Your task to perform on an android device: Open settings on Google Maps Image 0: 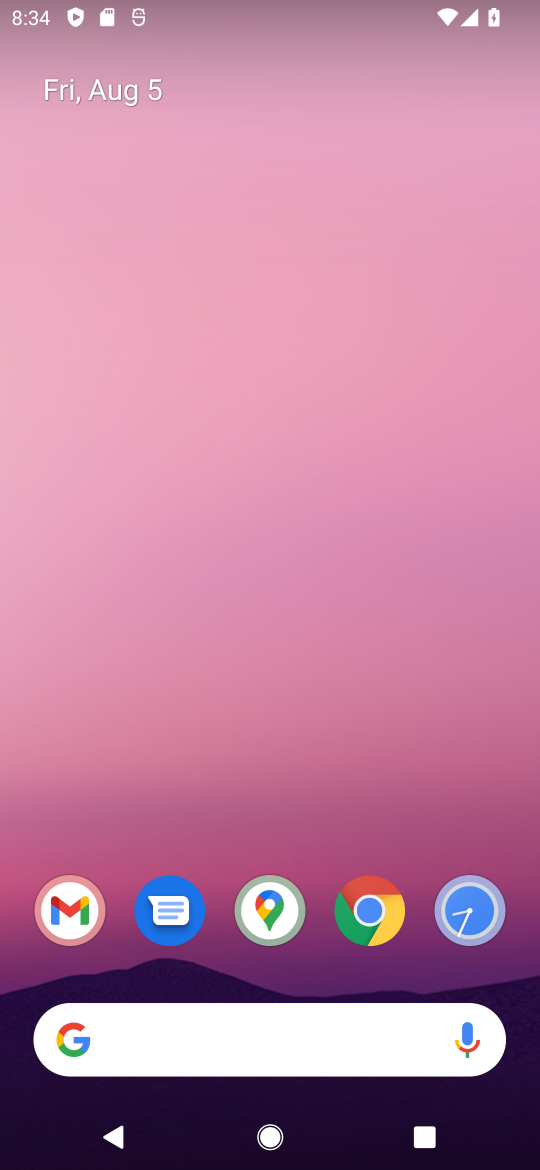
Step 0: press home button
Your task to perform on an android device: Open settings on Google Maps Image 1: 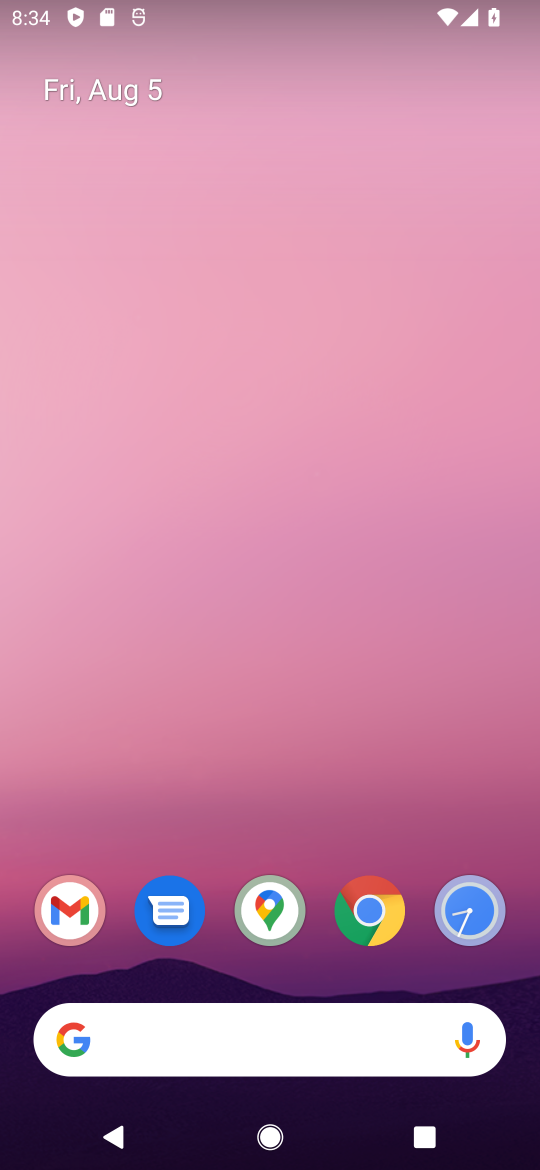
Step 1: click (272, 910)
Your task to perform on an android device: Open settings on Google Maps Image 2: 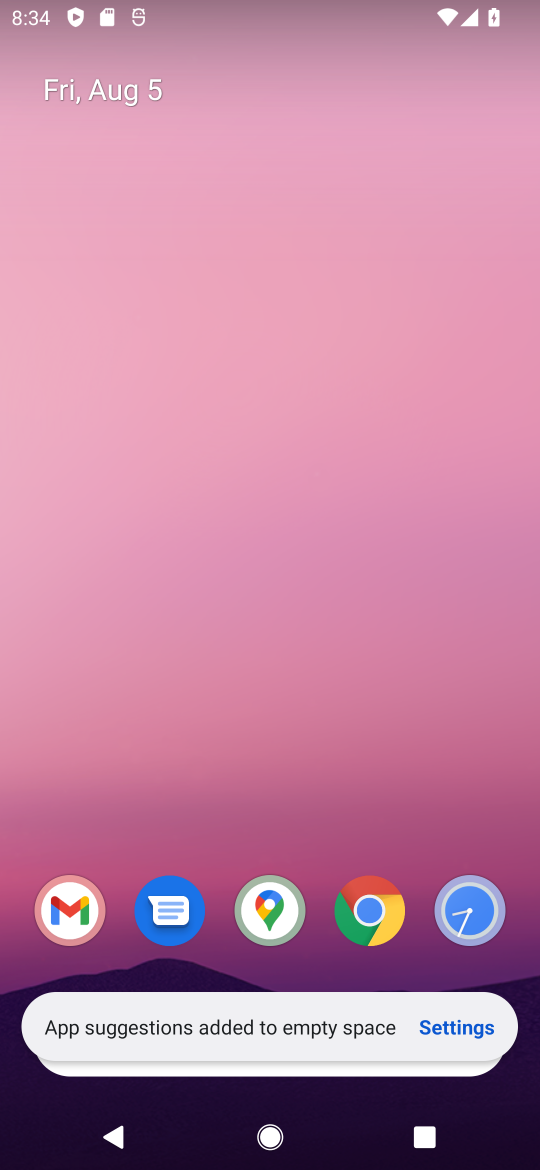
Step 2: click (272, 910)
Your task to perform on an android device: Open settings on Google Maps Image 3: 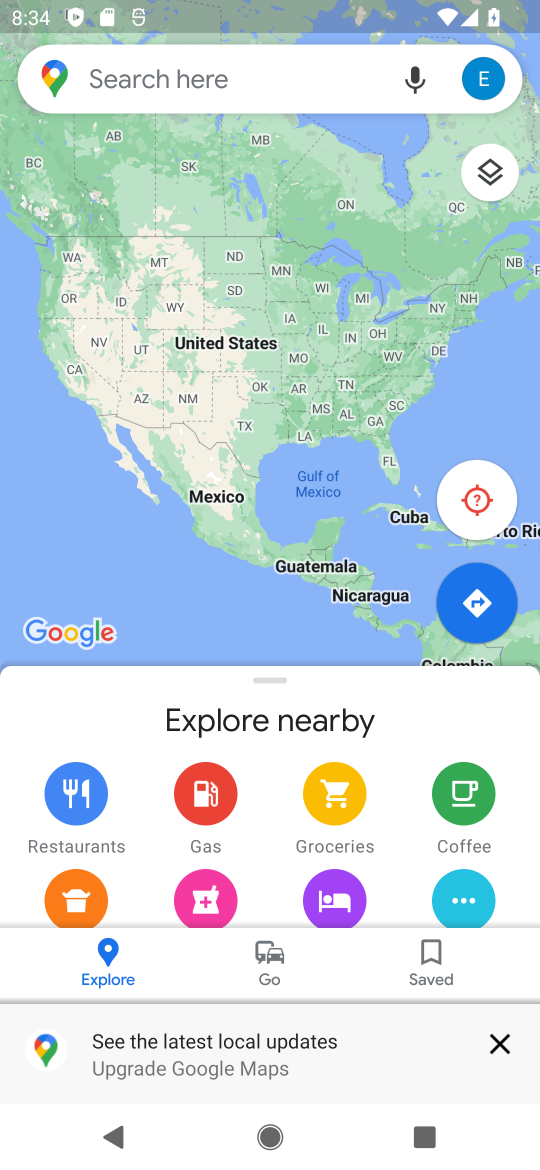
Step 3: click (490, 78)
Your task to perform on an android device: Open settings on Google Maps Image 4: 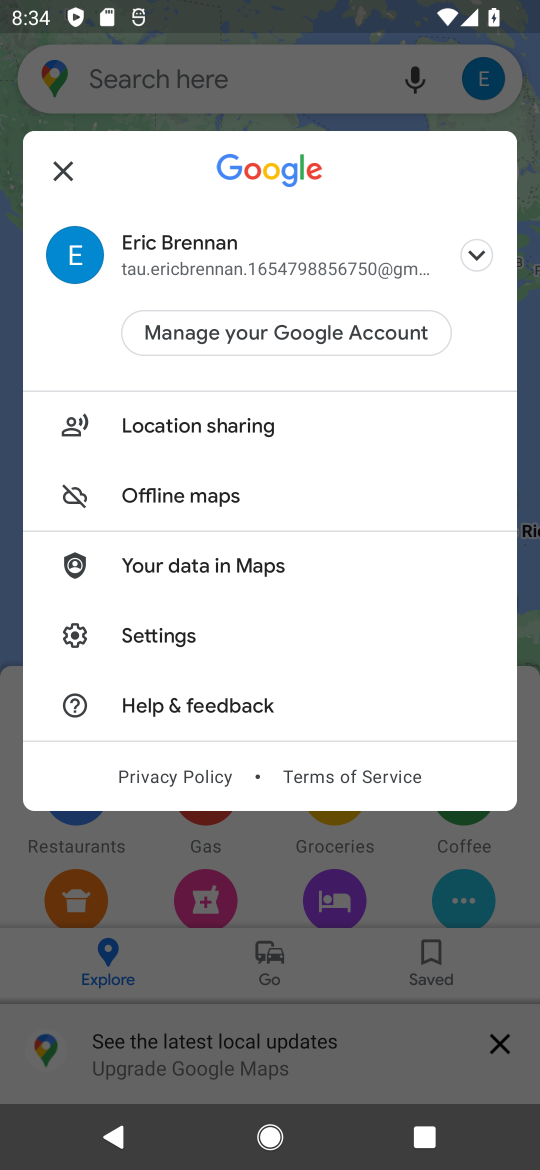
Step 4: click (186, 642)
Your task to perform on an android device: Open settings on Google Maps Image 5: 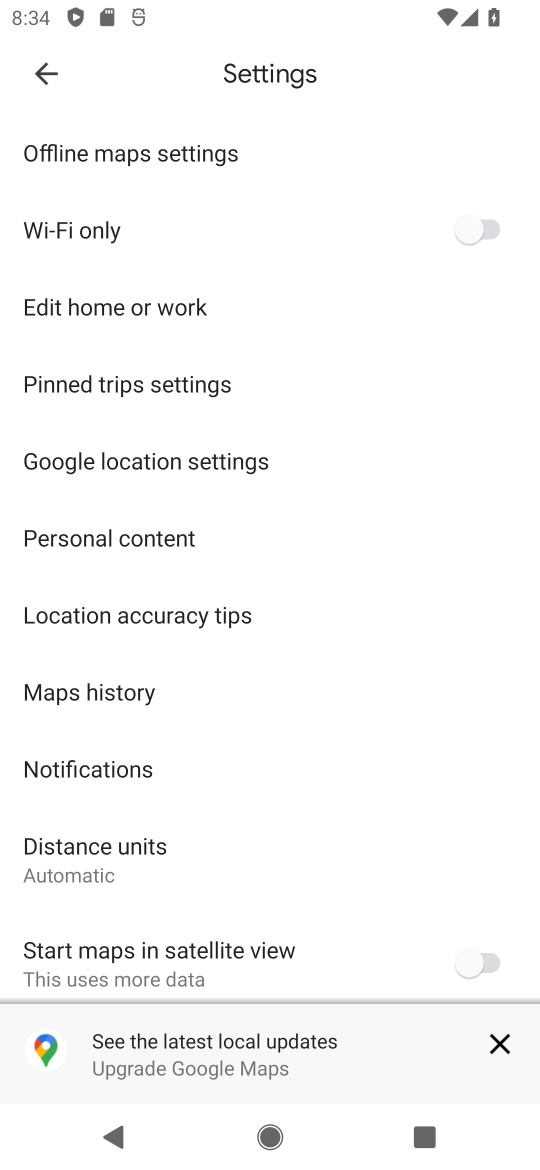
Step 5: task complete